Your task to perform on an android device: toggle translation in the chrome app Image 0: 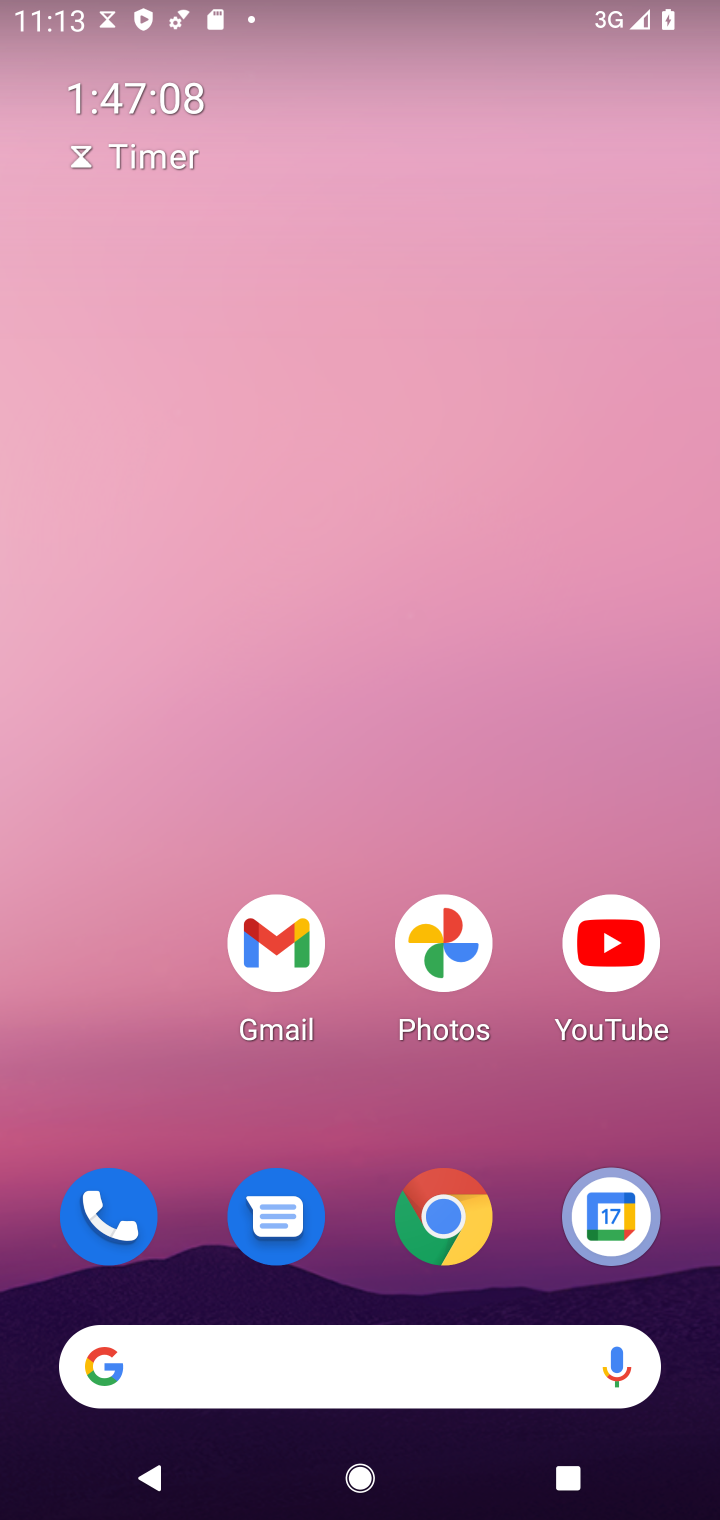
Step 0: click (446, 1210)
Your task to perform on an android device: toggle translation in the chrome app Image 1: 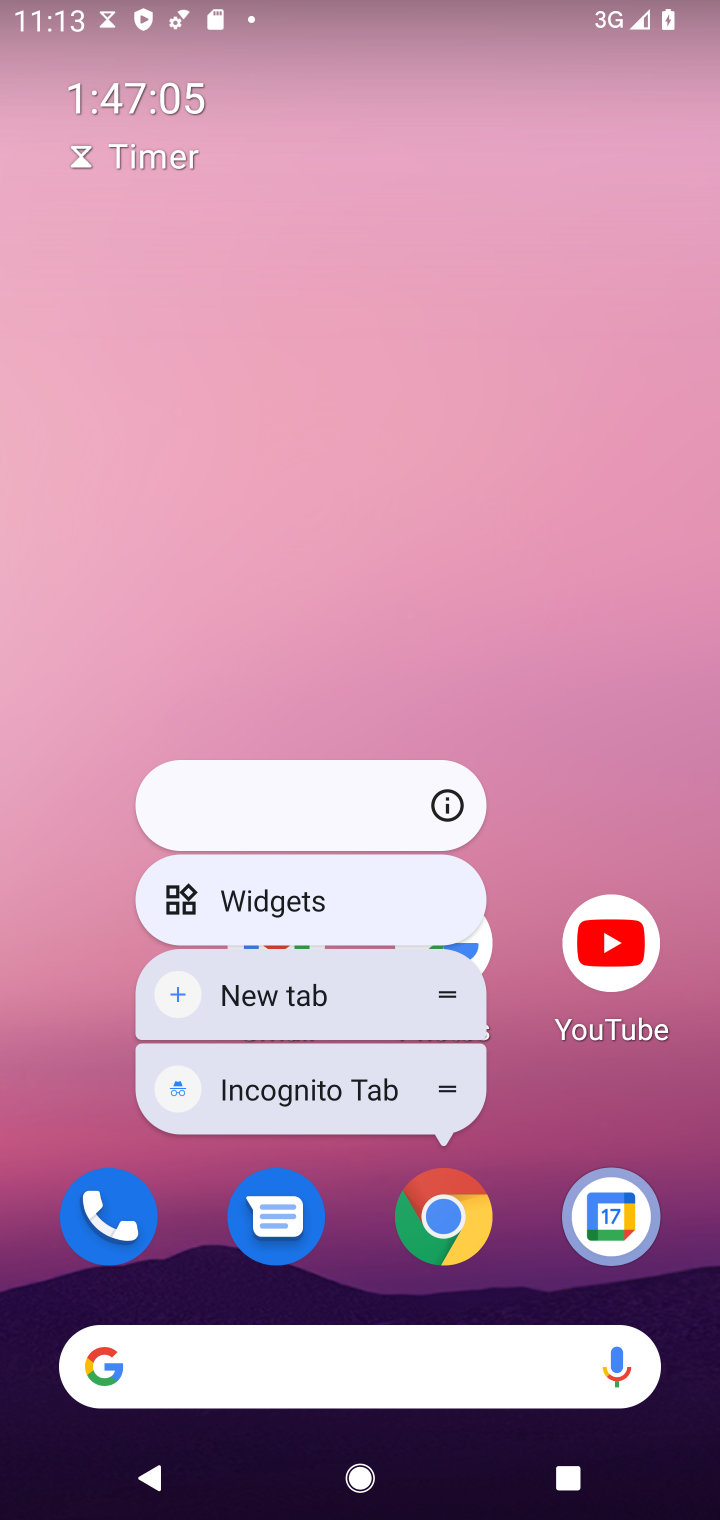
Step 1: click (446, 1208)
Your task to perform on an android device: toggle translation in the chrome app Image 2: 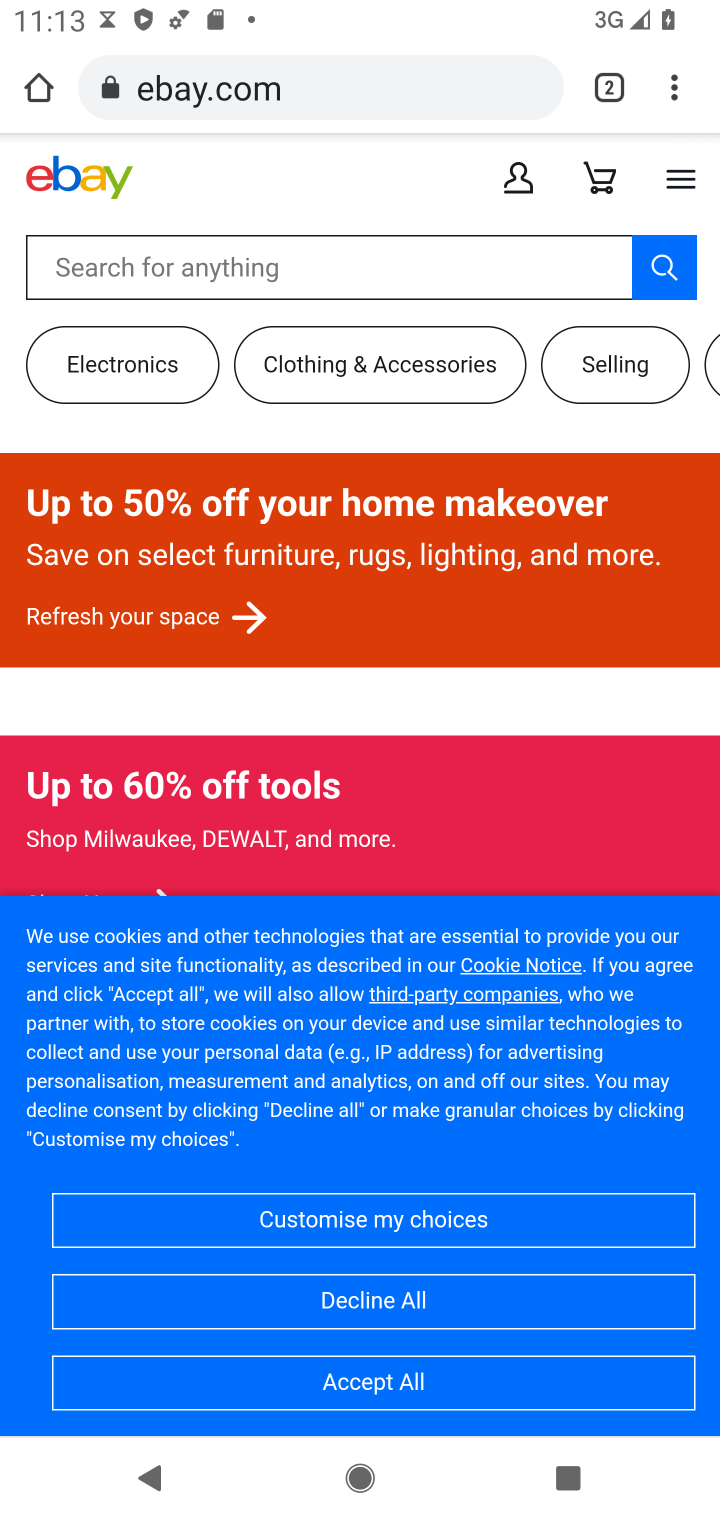
Step 2: drag from (661, 82) to (416, 1118)
Your task to perform on an android device: toggle translation in the chrome app Image 3: 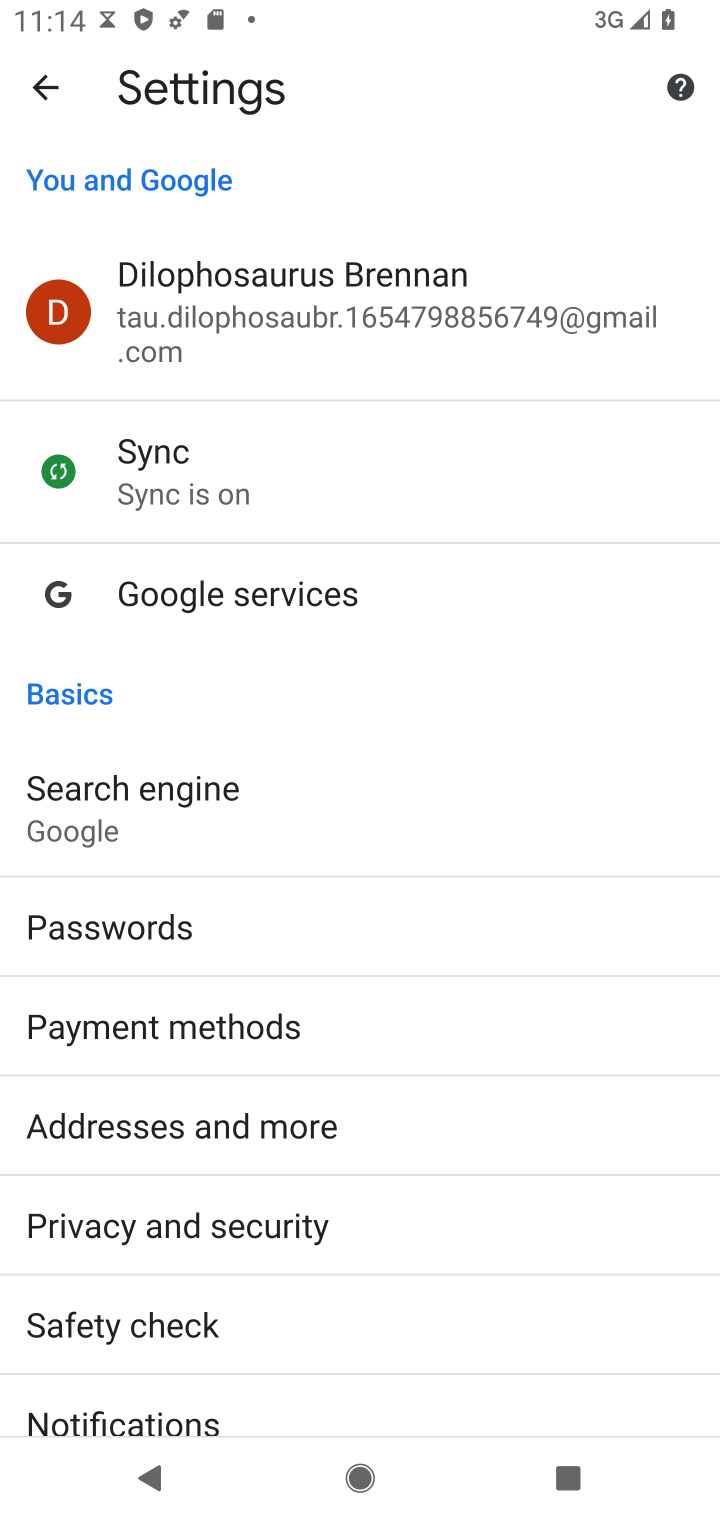
Step 3: drag from (276, 1350) to (441, 418)
Your task to perform on an android device: toggle translation in the chrome app Image 4: 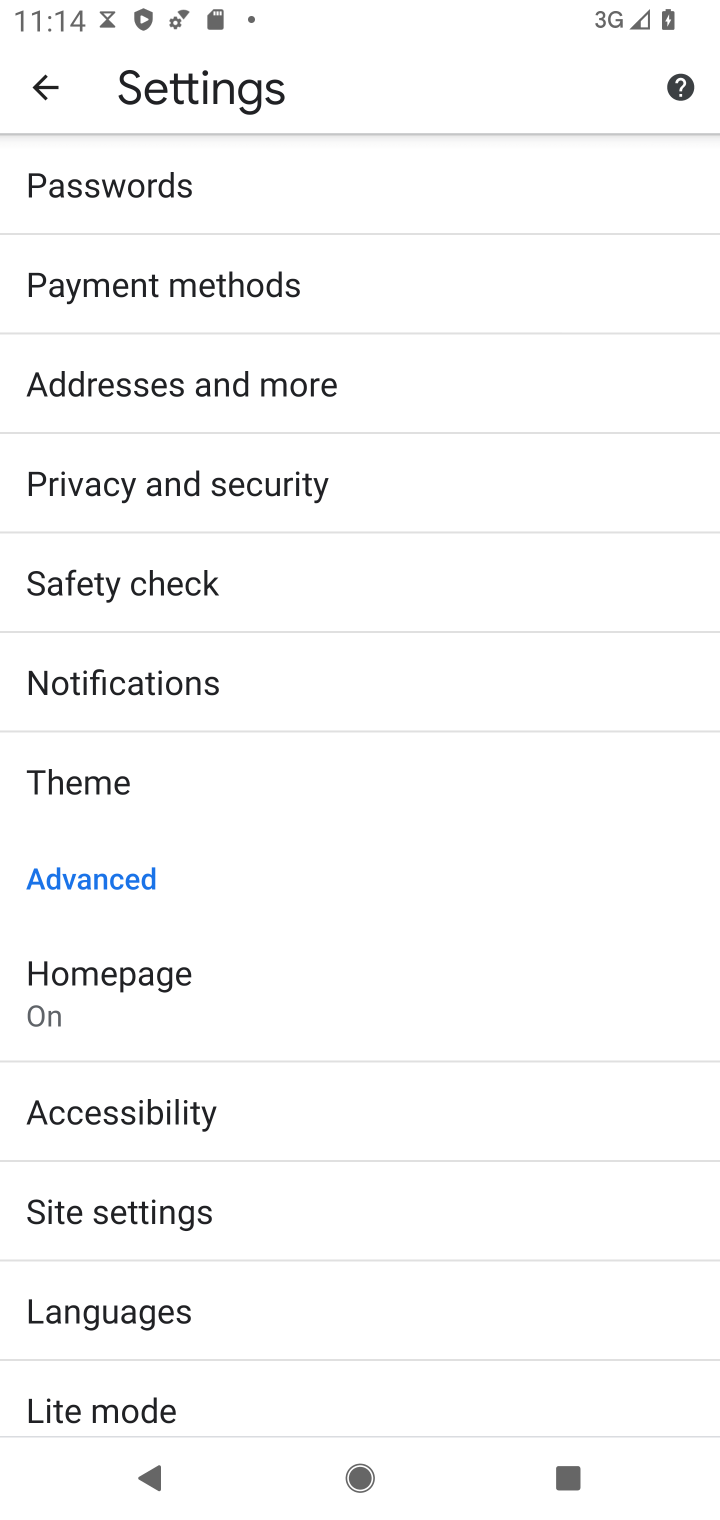
Step 4: click (145, 1293)
Your task to perform on an android device: toggle translation in the chrome app Image 5: 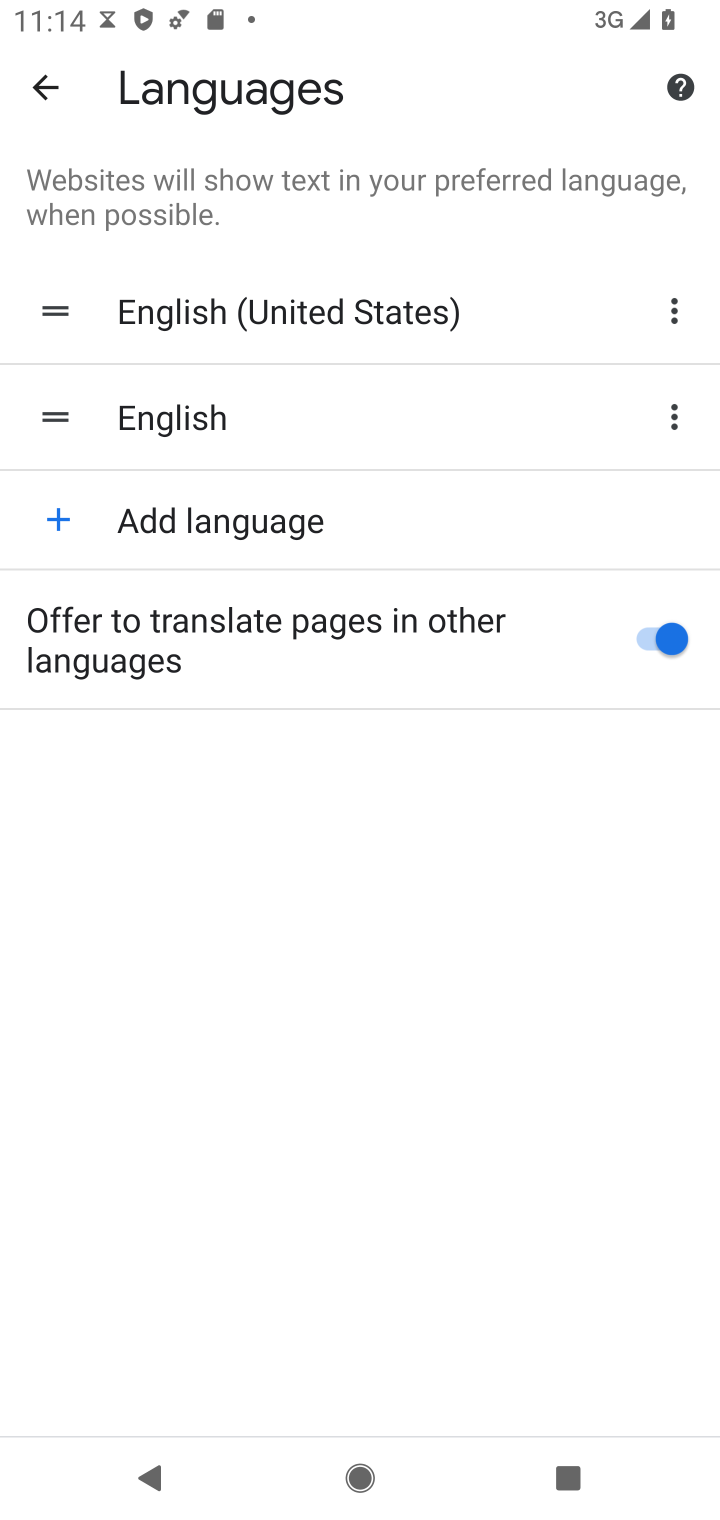
Step 5: click (670, 621)
Your task to perform on an android device: toggle translation in the chrome app Image 6: 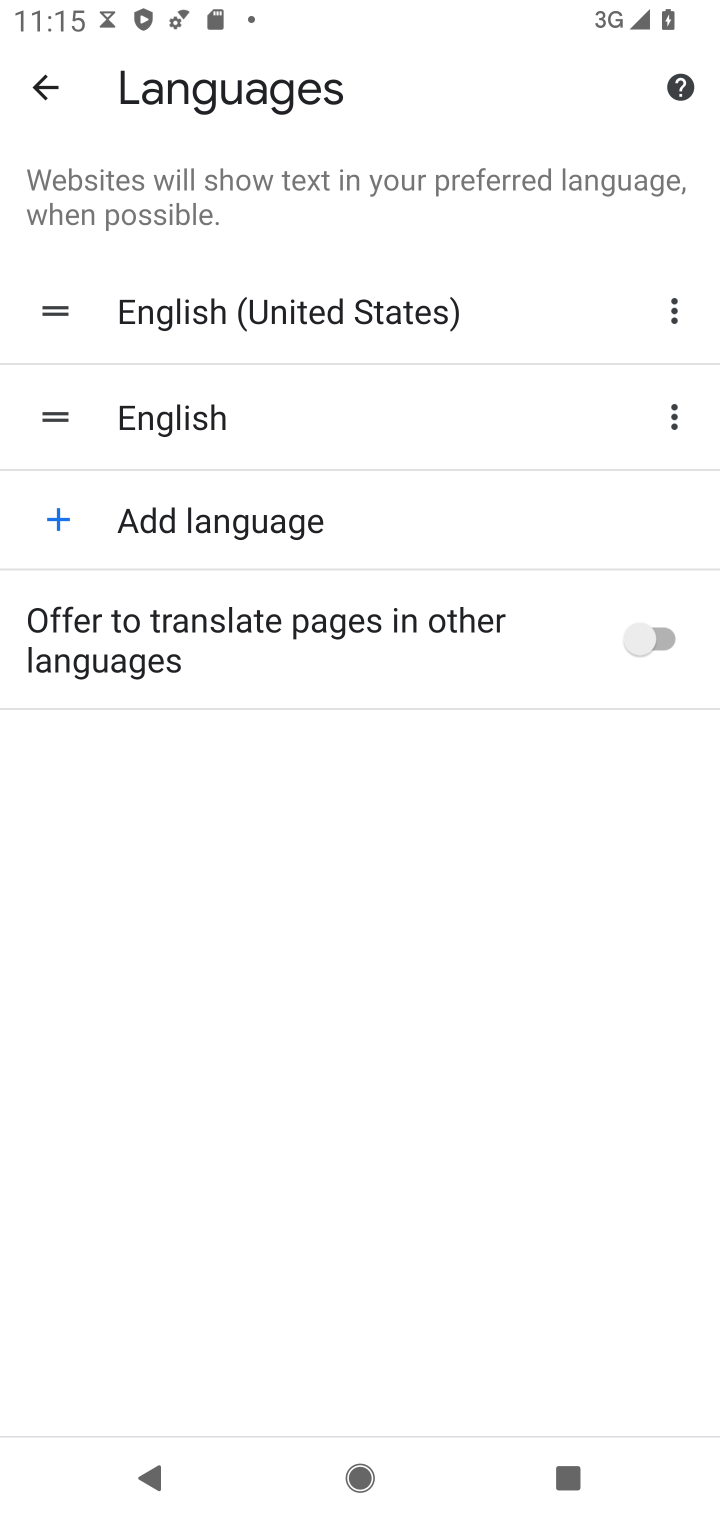
Step 6: task complete